Your task to perform on an android device: turn off notifications in google photos Image 0: 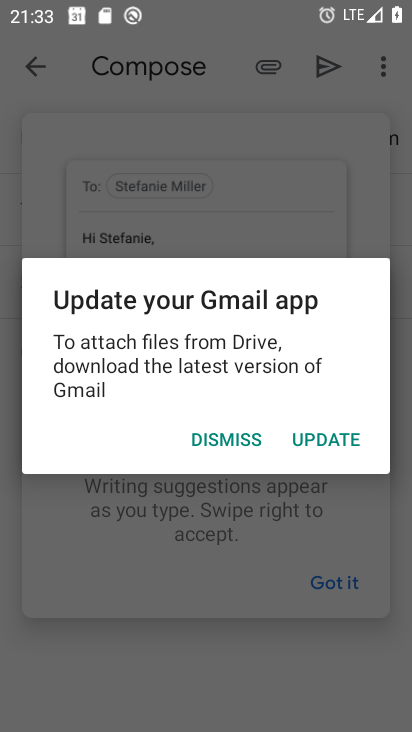
Step 0: press home button
Your task to perform on an android device: turn off notifications in google photos Image 1: 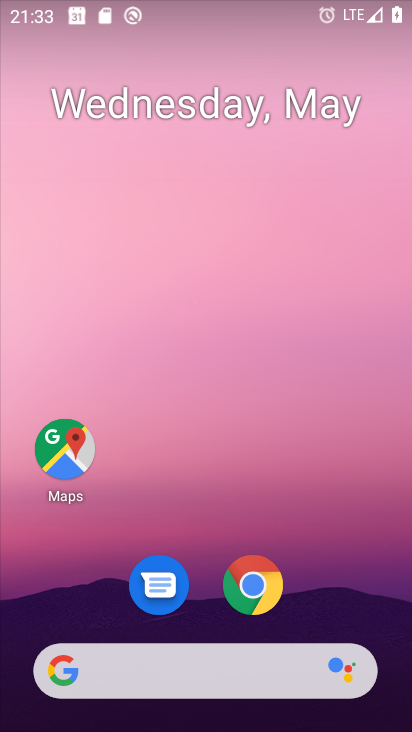
Step 1: drag from (318, 567) to (334, 40)
Your task to perform on an android device: turn off notifications in google photos Image 2: 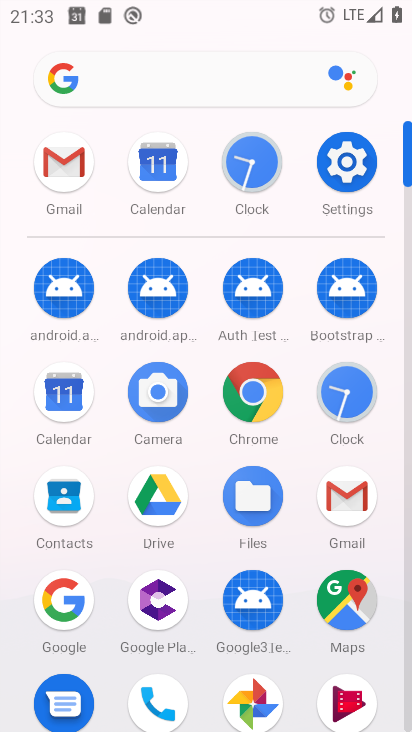
Step 2: click (334, 158)
Your task to perform on an android device: turn off notifications in google photos Image 3: 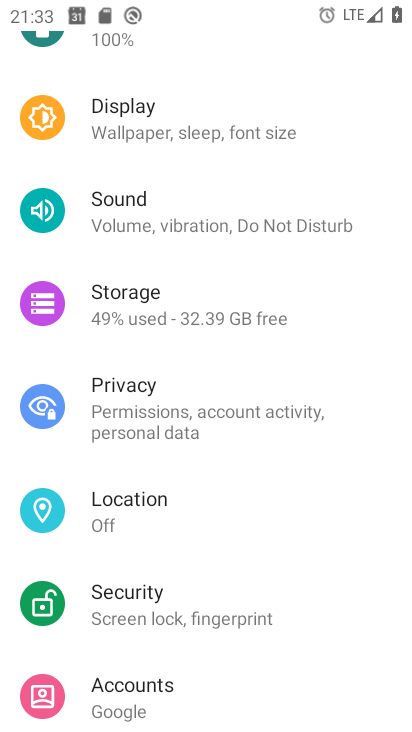
Step 3: drag from (180, 169) to (217, 600)
Your task to perform on an android device: turn off notifications in google photos Image 4: 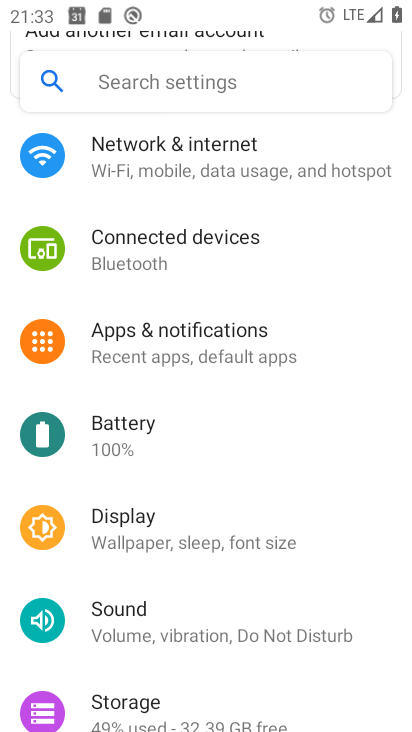
Step 4: click (235, 335)
Your task to perform on an android device: turn off notifications in google photos Image 5: 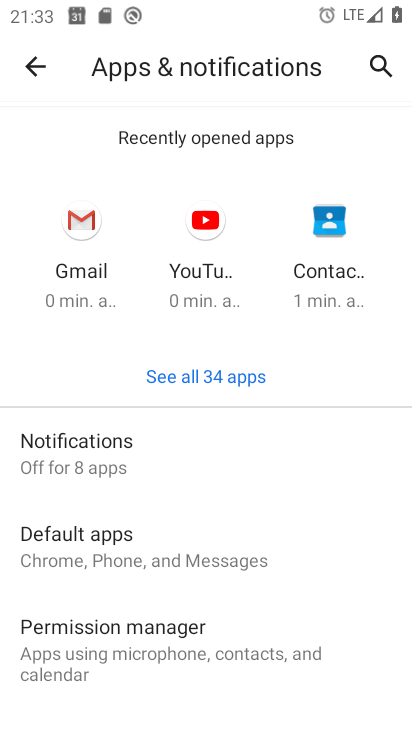
Step 5: click (230, 367)
Your task to perform on an android device: turn off notifications in google photos Image 6: 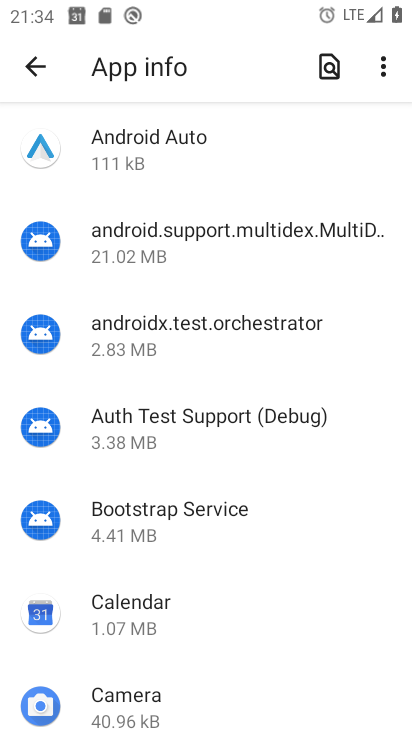
Step 6: drag from (257, 702) to (246, 3)
Your task to perform on an android device: turn off notifications in google photos Image 7: 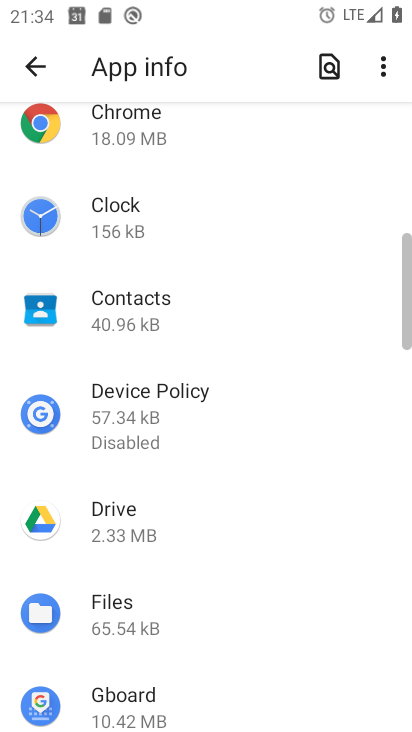
Step 7: drag from (190, 709) to (200, 0)
Your task to perform on an android device: turn off notifications in google photos Image 8: 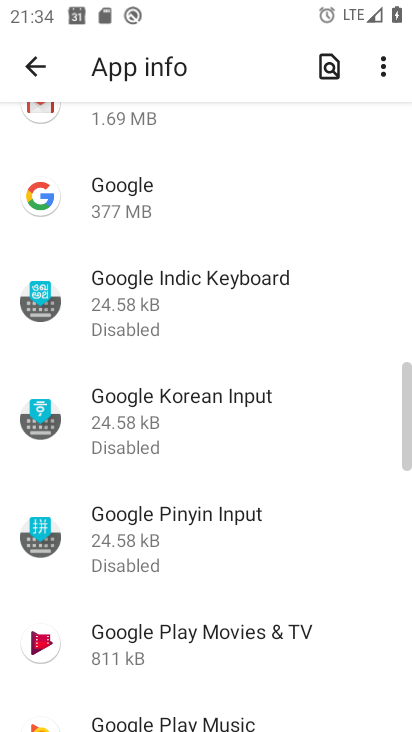
Step 8: drag from (263, 716) to (218, 0)
Your task to perform on an android device: turn off notifications in google photos Image 9: 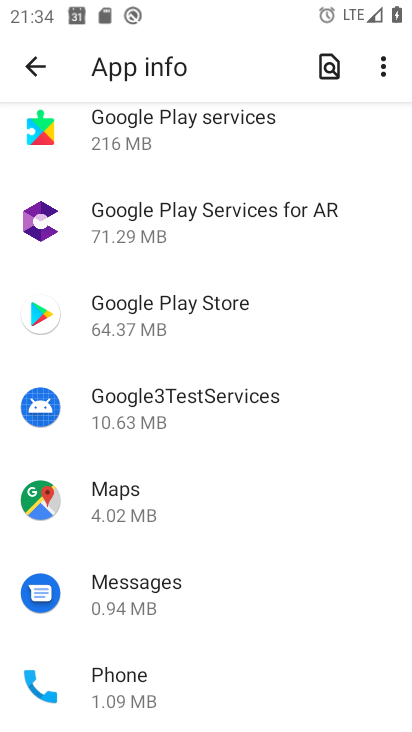
Step 9: drag from (231, 691) to (191, 186)
Your task to perform on an android device: turn off notifications in google photos Image 10: 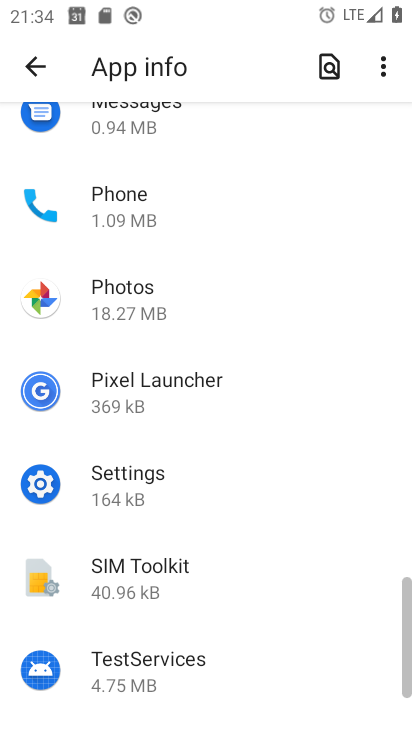
Step 10: click (136, 286)
Your task to perform on an android device: turn off notifications in google photos Image 11: 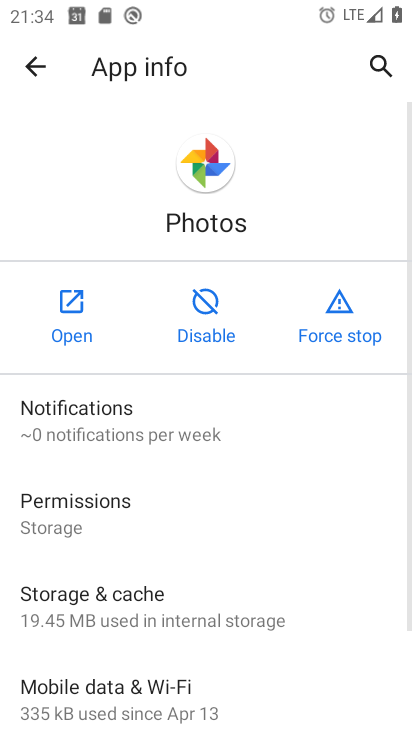
Step 11: click (183, 423)
Your task to perform on an android device: turn off notifications in google photos Image 12: 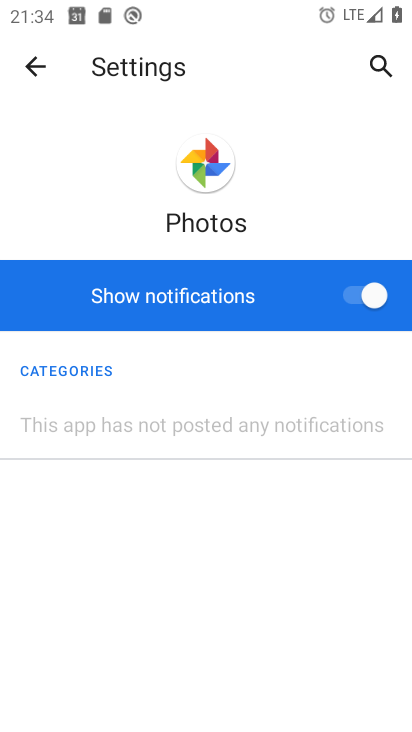
Step 12: click (352, 290)
Your task to perform on an android device: turn off notifications in google photos Image 13: 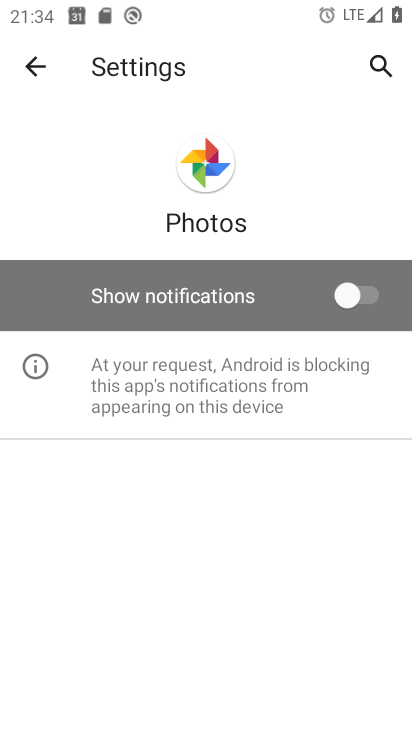
Step 13: task complete